Your task to perform on an android device: Search for sushi restaurants on Maps Image 0: 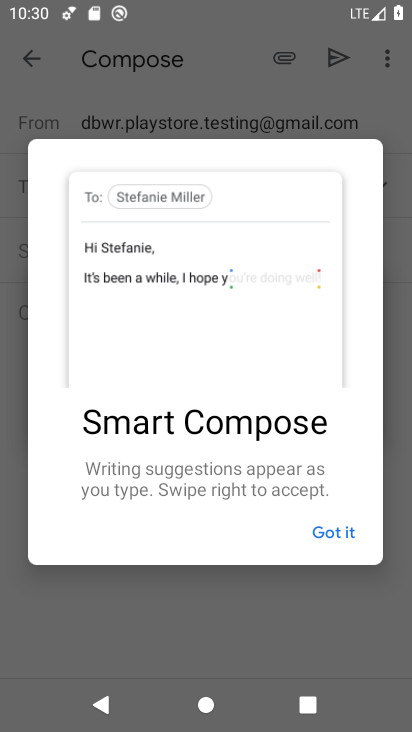
Step 0: press home button
Your task to perform on an android device: Search for sushi restaurants on Maps Image 1: 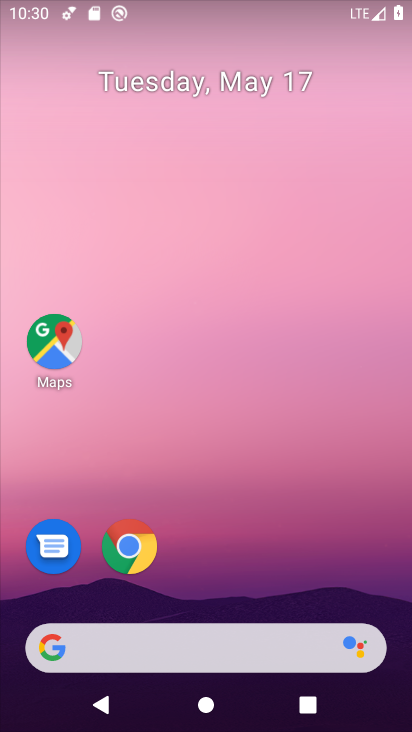
Step 1: click (52, 336)
Your task to perform on an android device: Search for sushi restaurants on Maps Image 2: 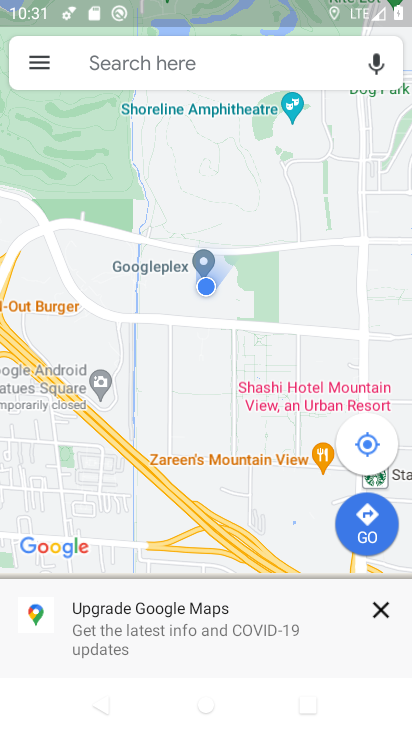
Step 2: click (164, 70)
Your task to perform on an android device: Search for sushi restaurants on Maps Image 3: 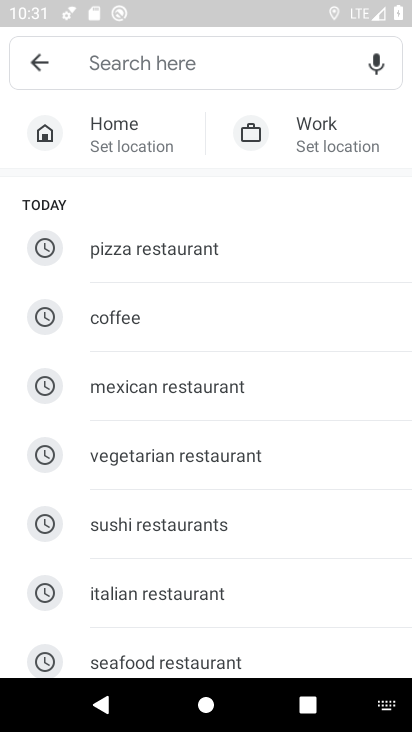
Step 3: type "sushi restaurants"
Your task to perform on an android device: Search for sushi restaurants on Maps Image 4: 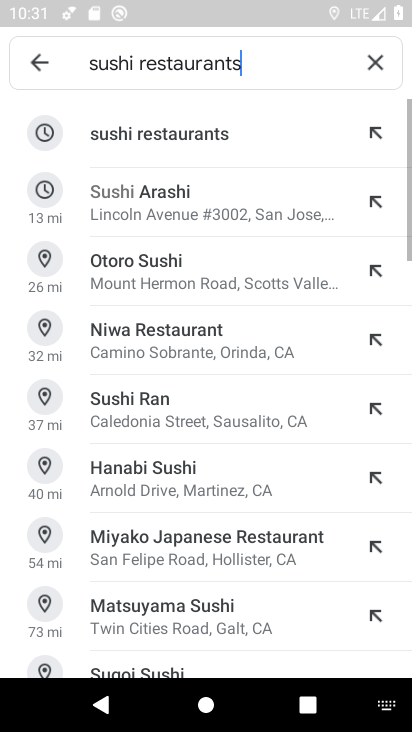
Step 4: click (211, 140)
Your task to perform on an android device: Search for sushi restaurants on Maps Image 5: 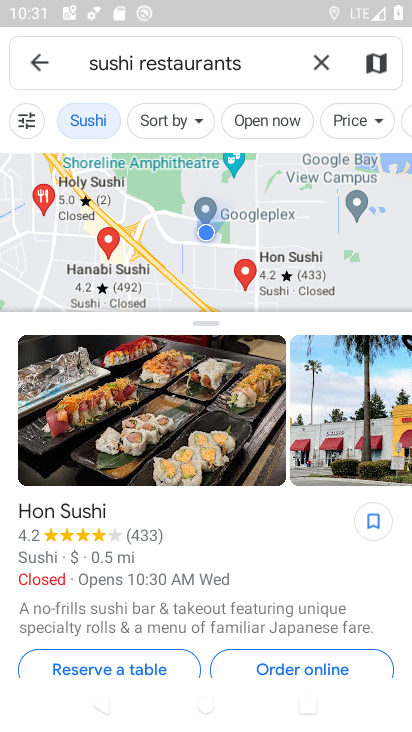
Step 5: task complete